Your task to perform on an android device: change the clock display to analog Image 0: 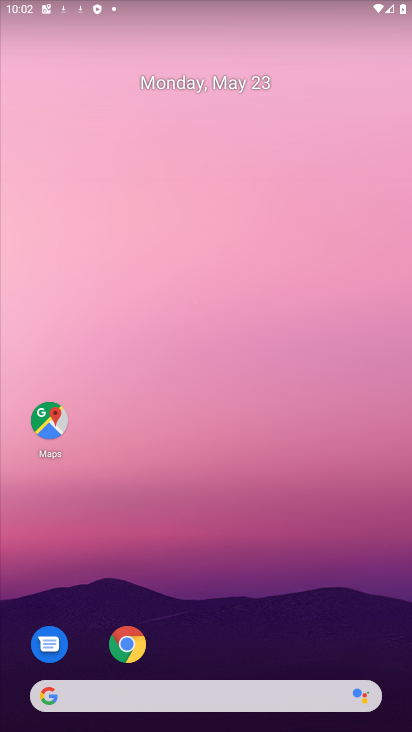
Step 0: drag from (271, 372) to (296, 138)
Your task to perform on an android device: change the clock display to analog Image 1: 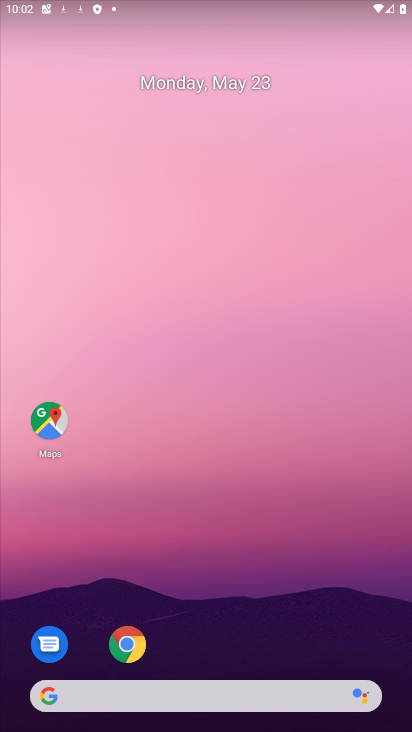
Step 1: drag from (225, 696) to (199, 11)
Your task to perform on an android device: change the clock display to analog Image 2: 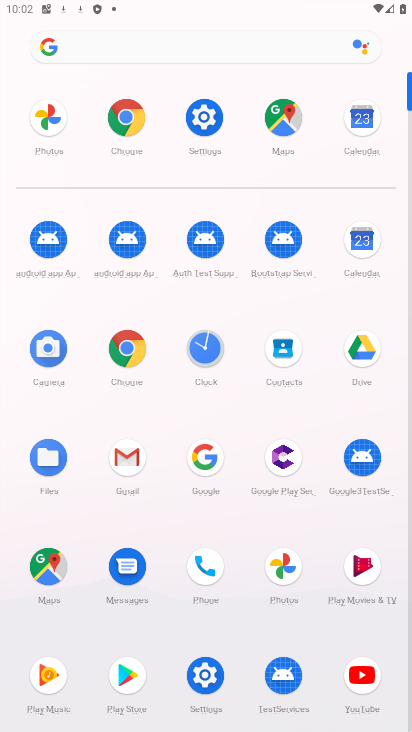
Step 2: click (206, 347)
Your task to perform on an android device: change the clock display to analog Image 3: 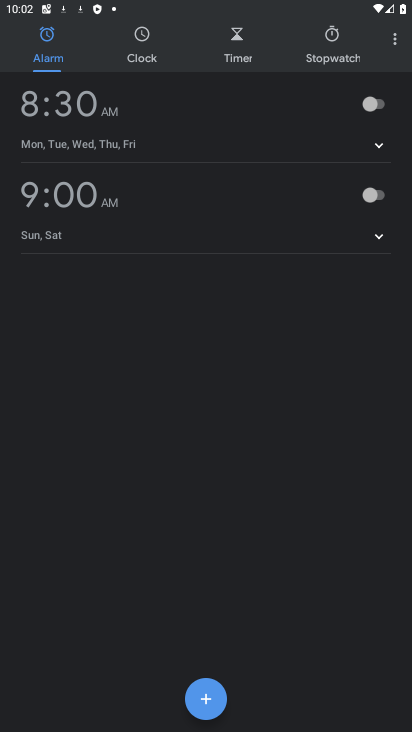
Step 3: click (388, 37)
Your task to perform on an android device: change the clock display to analog Image 4: 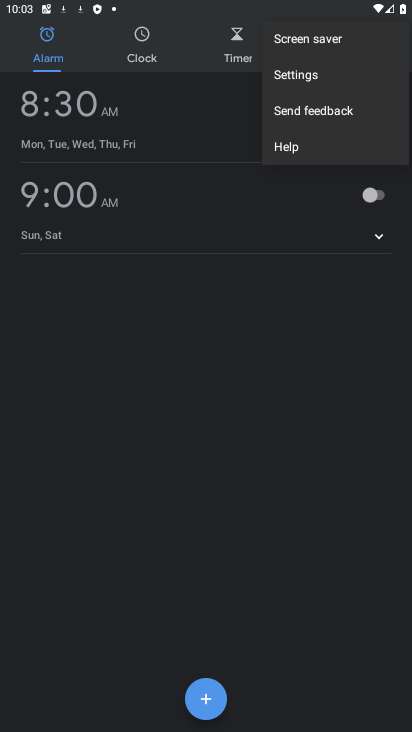
Step 4: click (319, 75)
Your task to perform on an android device: change the clock display to analog Image 5: 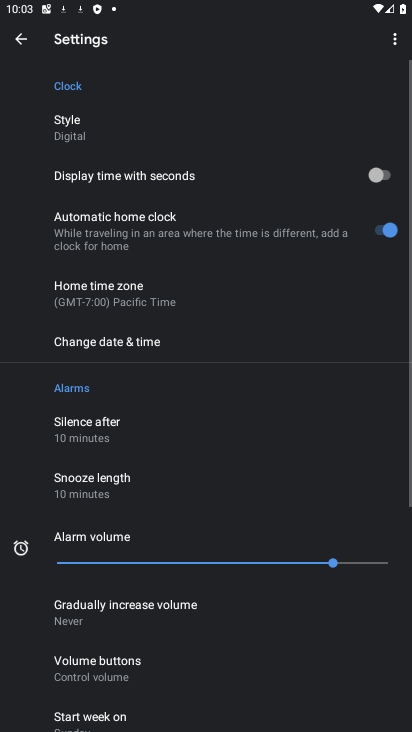
Step 5: click (100, 126)
Your task to perform on an android device: change the clock display to analog Image 6: 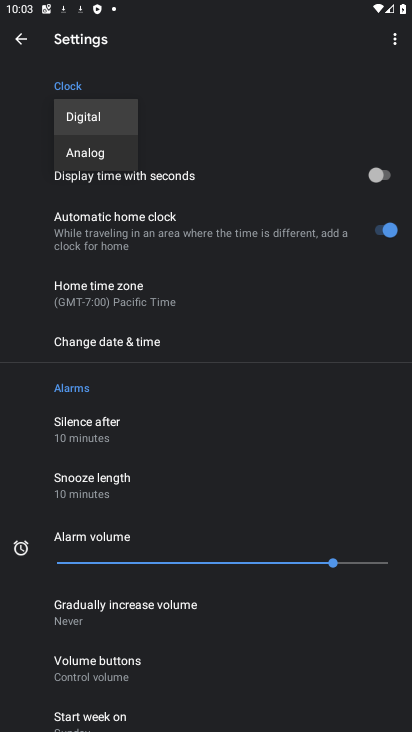
Step 6: click (98, 148)
Your task to perform on an android device: change the clock display to analog Image 7: 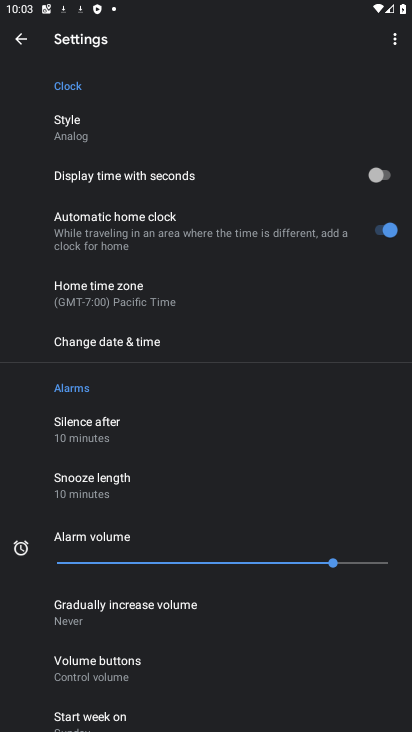
Step 7: task complete